Your task to perform on an android device: change the clock display to digital Image 0: 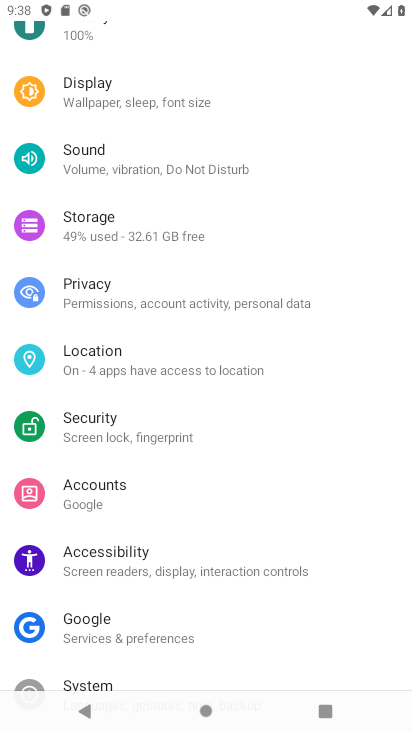
Step 0: press home button
Your task to perform on an android device: change the clock display to digital Image 1: 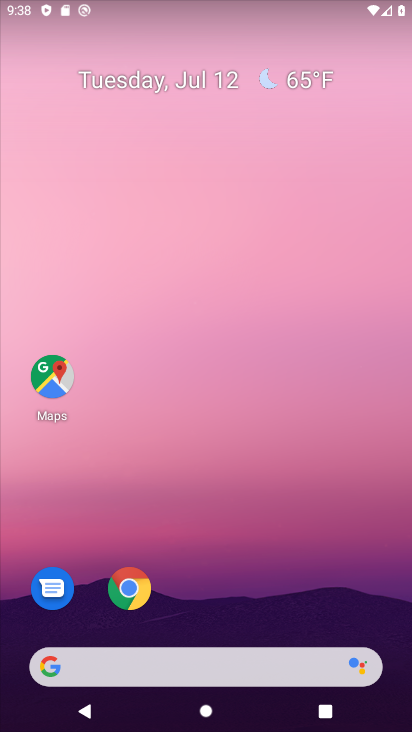
Step 1: drag from (46, 712) to (188, 325)
Your task to perform on an android device: change the clock display to digital Image 2: 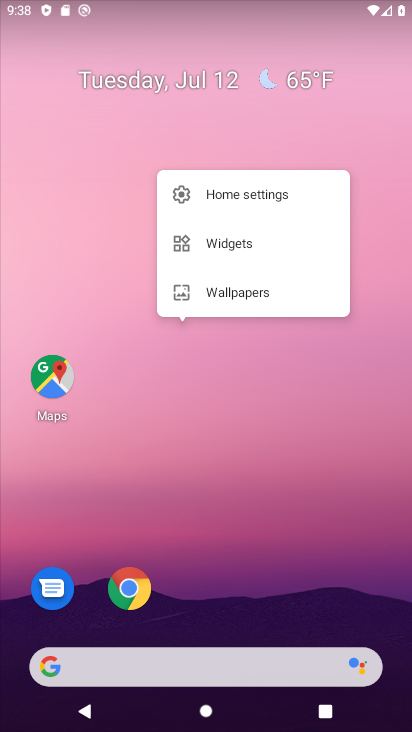
Step 2: drag from (32, 702) to (241, 60)
Your task to perform on an android device: change the clock display to digital Image 3: 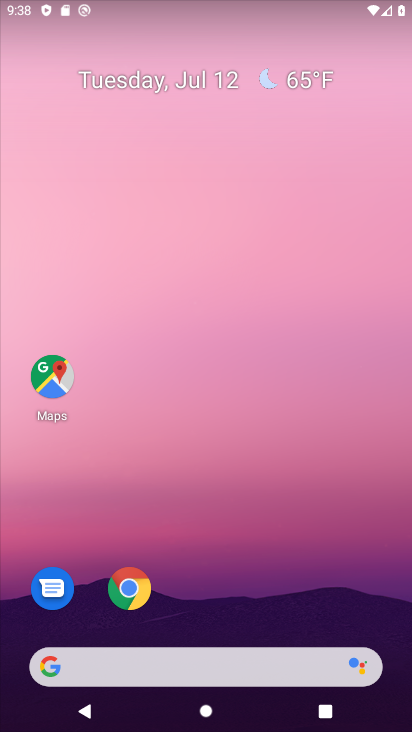
Step 3: drag from (16, 685) to (174, 48)
Your task to perform on an android device: change the clock display to digital Image 4: 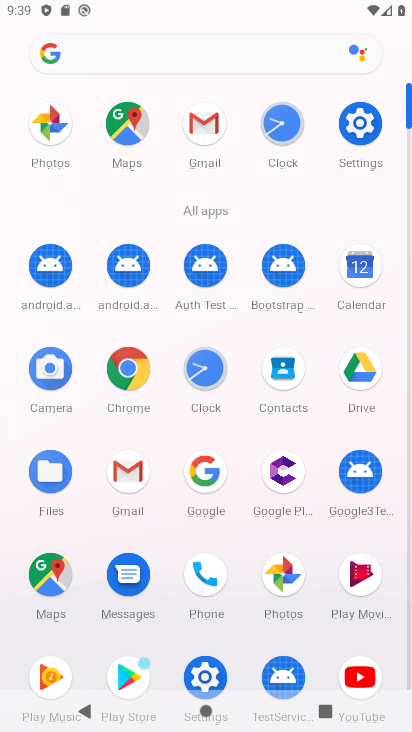
Step 4: click (283, 120)
Your task to perform on an android device: change the clock display to digital Image 5: 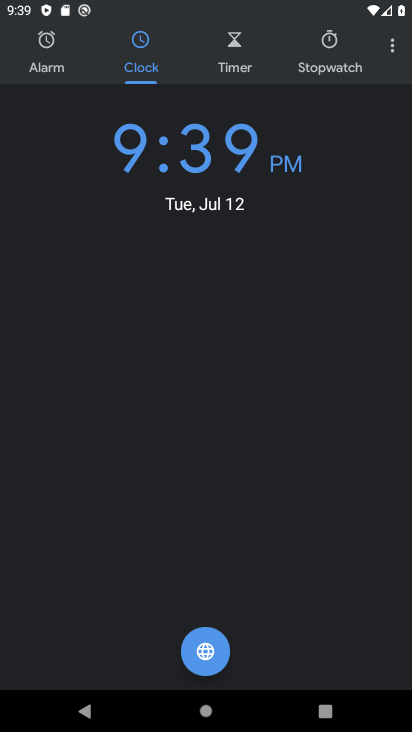
Step 5: click (397, 39)
Your task to perform on an android device: change the clock display to digital Image 6: 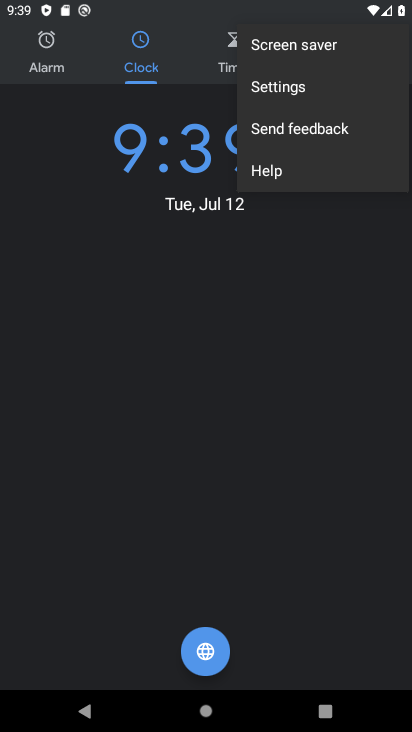
Step 6: click (282, 89)
Your task to perform on an android device: change the clock display to digital Image 7: 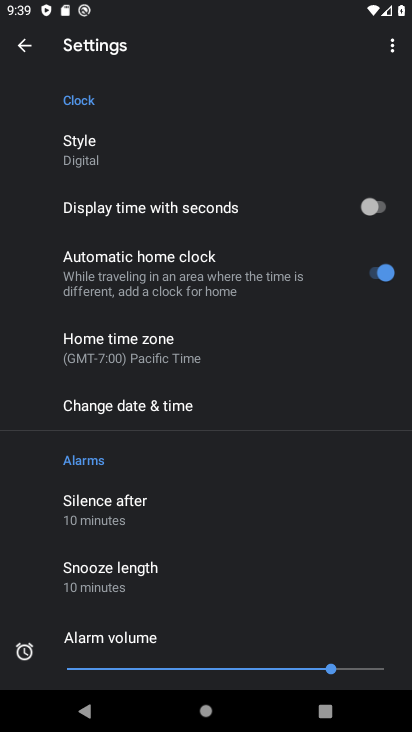
Step 7: task complete